Your task to perform on an android device: change notifications settings Image 0: 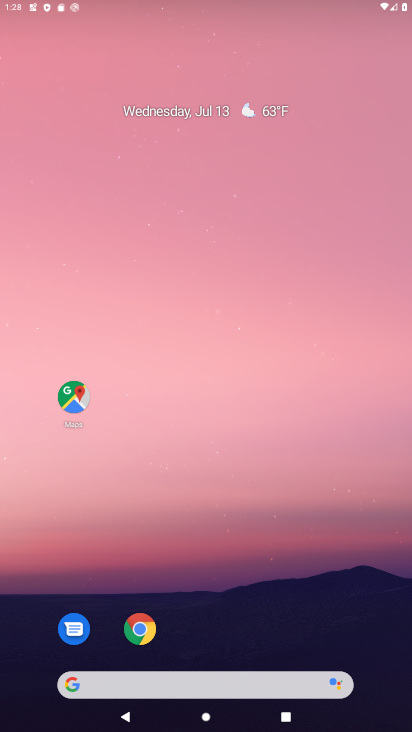
Step 0: drag from (164, 632) to (306, 143)
Your task to perform on an android device: change notifications settings Image 1: 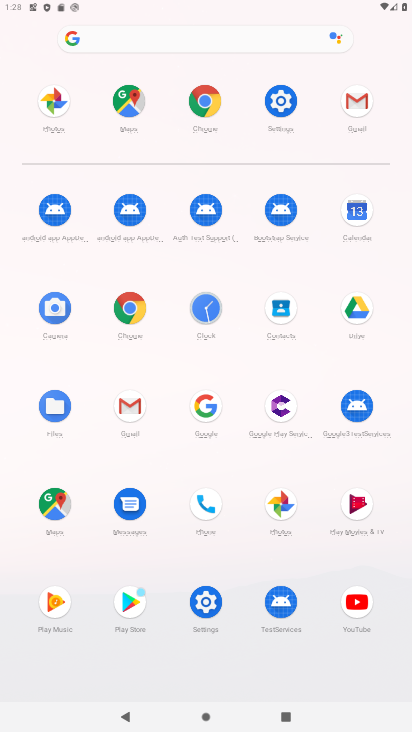
Step 1: click (282, 99)
Your task to perform on an android device: change notifications settings Image 2: 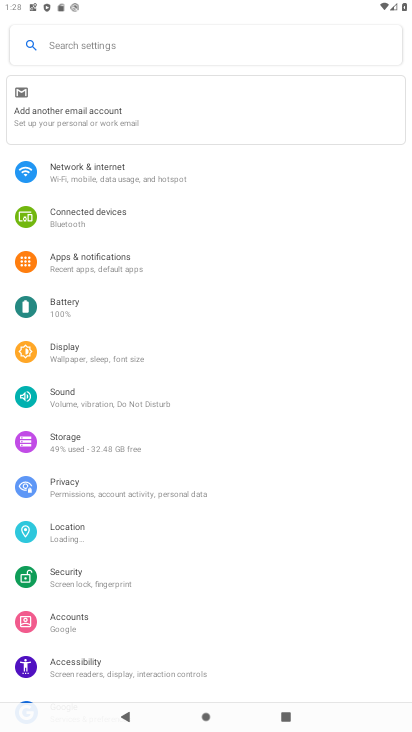
Step 2: click (94, 276)
Your task to perform on an android device: change notifications settings Image 3: 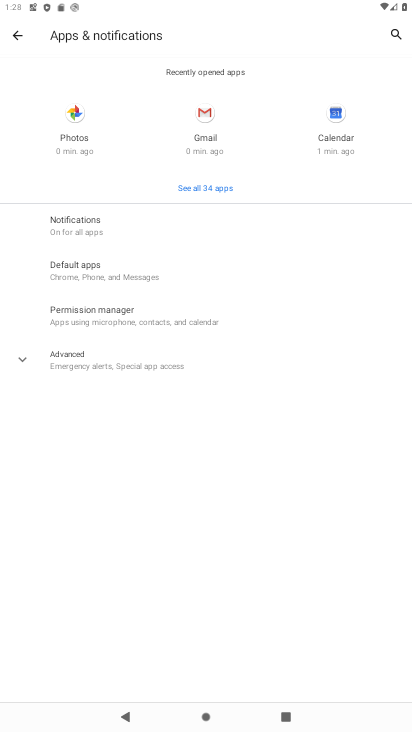
Step 3: click (91, 235)
Your task to perform on an android device: change notifications settings Image 4: 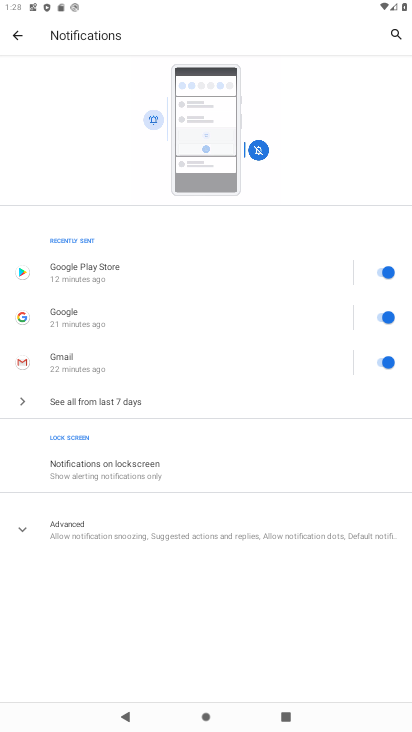
Step 4: task complete